Your task to perform on an android device: Search for sushi restaurants on Maps Image 0: 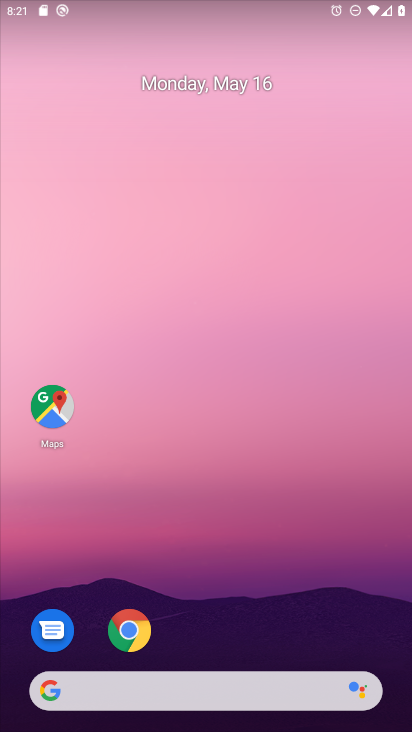
Step 0: click (134, 691)
Your task to perform on an android device: Search for sushi restaurants on Maps Image 1: 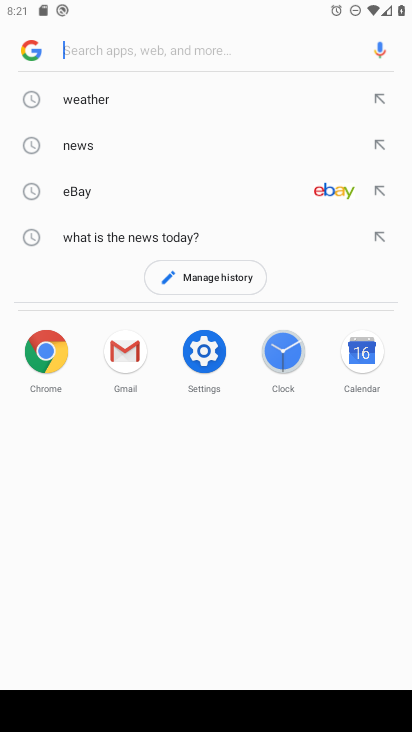
Step 1: press home button
Your task to perform on an android device: Search for sushi restaurants on Maps Image 2: 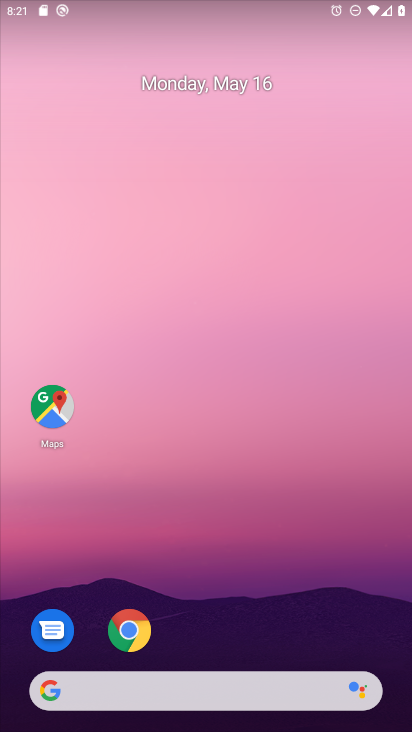
Step 2: click (58, 404)
Your task to perform on an android device: Search for sushi restaurants on Maps Image 3: 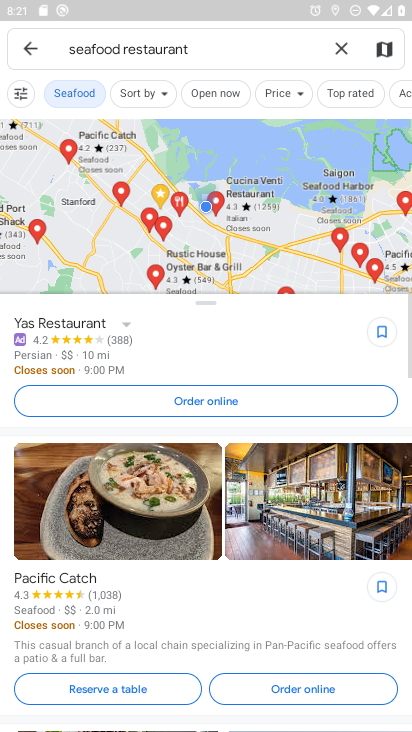
Step 3: click (333, 51)
Your task to perform on an android device: Search for sushi restaurants on Maps Image 4: 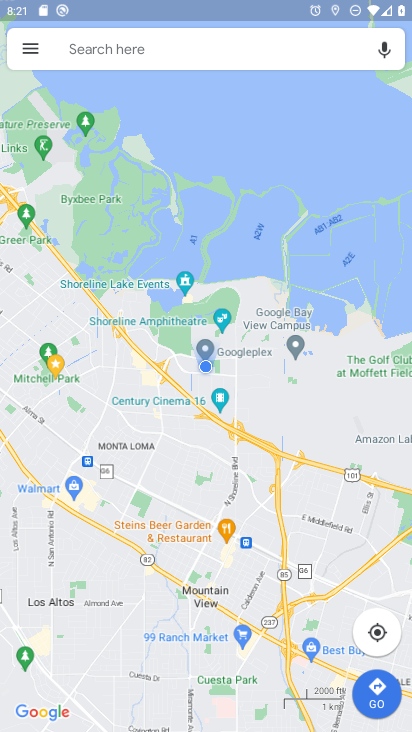
Step 4: click (87, 51)
Your task to perform on an android device: Search for sushi restaurants on Maps Image 5: 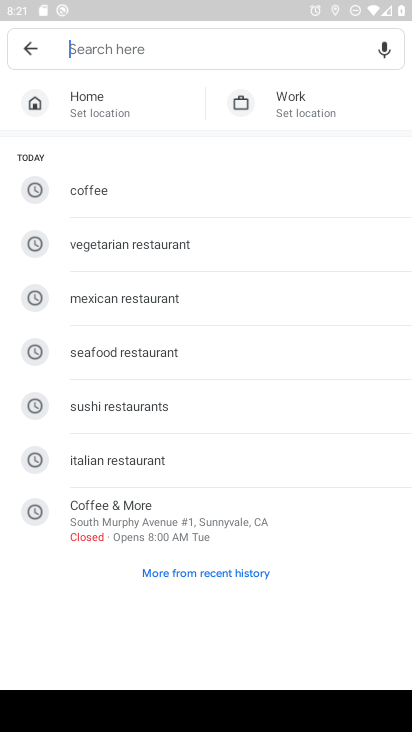
Step 5: click (98, 412)
Your task to perform on an android device: Search for sushi restaurants on Maps Image 6: 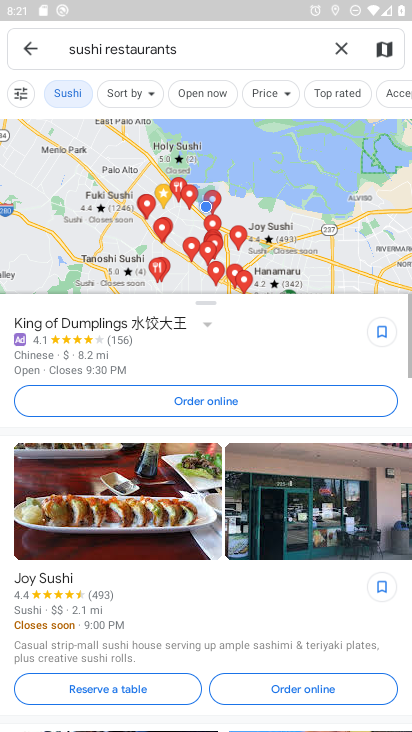
Step 6: task complete